Your task to perform on an android device: add a contact in the contacts app Image 0: 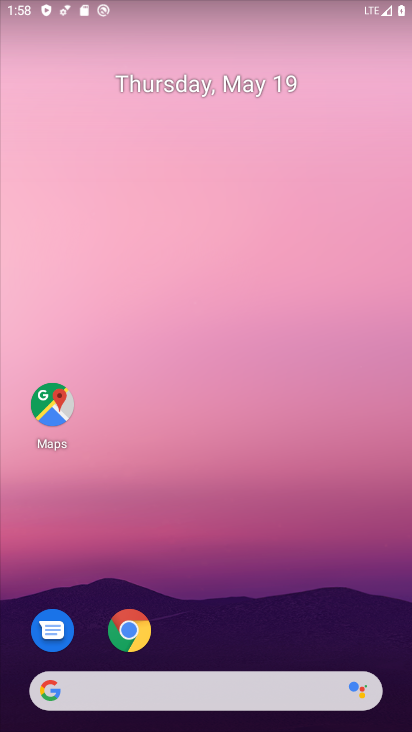
Step 0: drag from (241, 513) to (208, 24)
Your task to perform on an android device: add a contact in the contacts app Image 1: 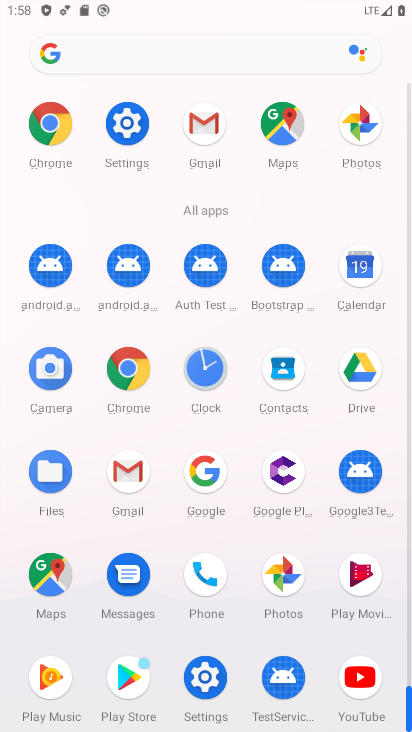
Step 1: click (282, 362)
Your task to perform on an android device: add a contact in the contacts app Image 2: 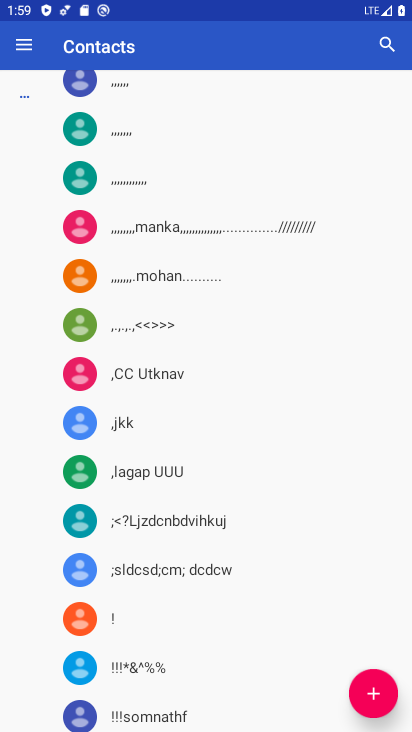
Step 2: click (373, 684)
Your task to perform on an android device: add a contact in the contacts app Image 3: 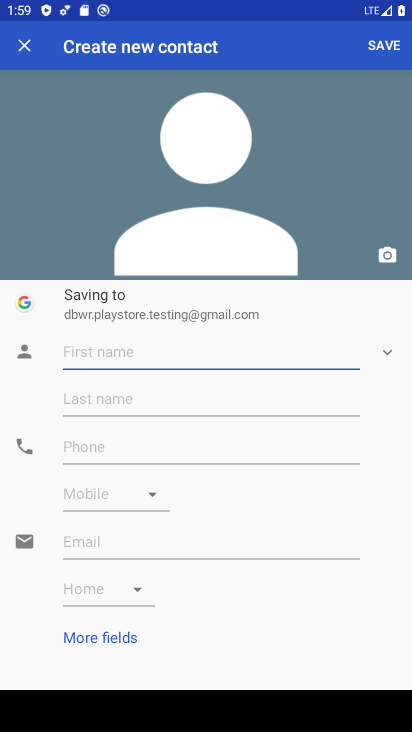
Step 3: type "Gdrtyui"
Your task to perform on an android device: add a contact in the contacts app Image 4: 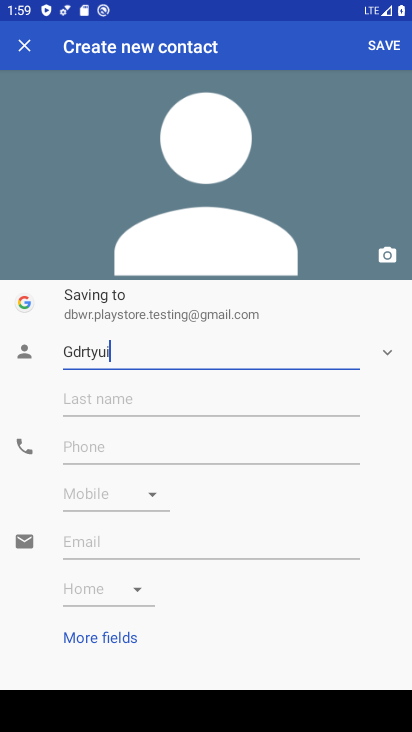
Step 4: type ""
Your task to perform on an android device: add a contact in the contacts app Image 5: 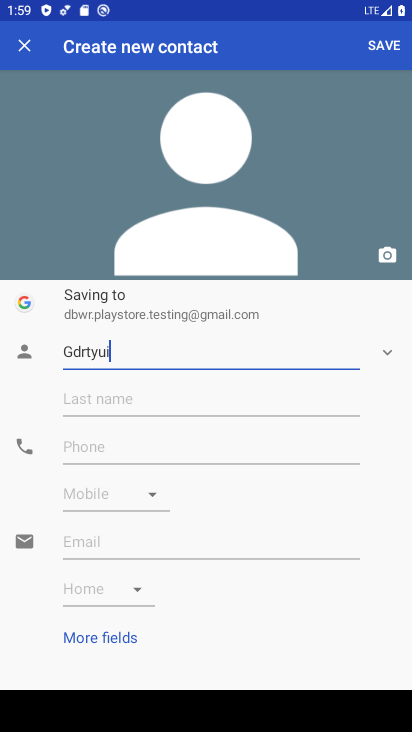
Step 5: click (104, 444)
Your task to perform on an android device: add a contact in the contacts app Image 6: 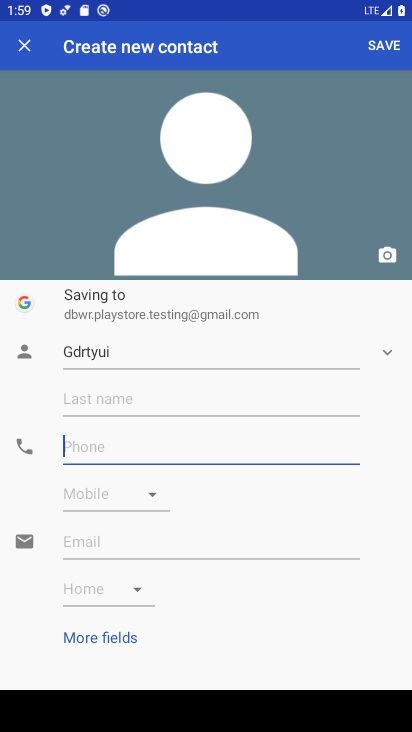
Step 6: type "345678"
Your task to perform on an android device: add a contact in the contacts app Image 7: 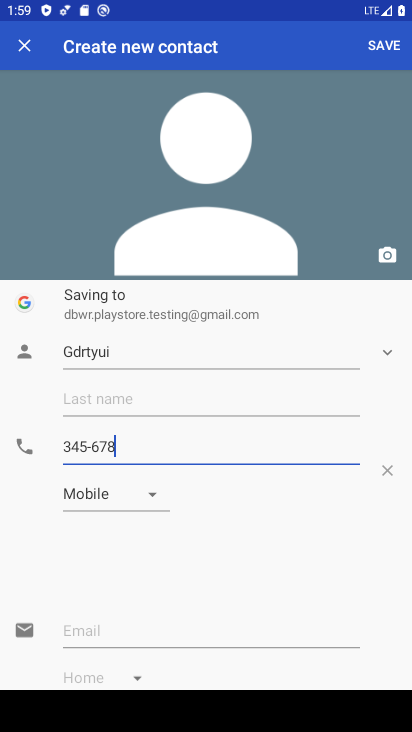
Step 7: type ""
Your task to perform on an android device: add a contact in the contacts app Image 8: 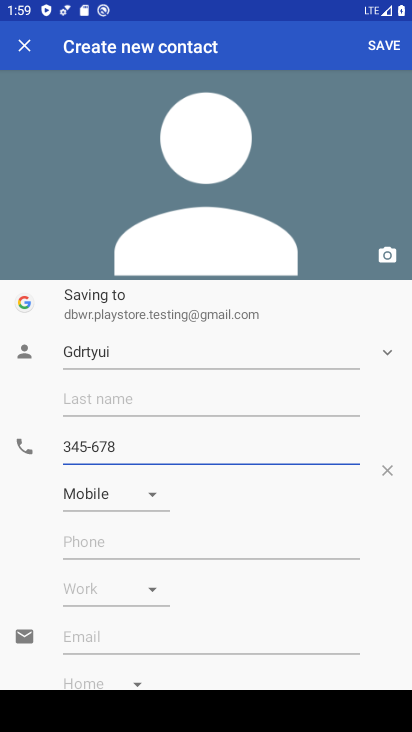
Step 8: click (387, 40)
Your task to perform on an android device: add a contact in the contacts app Image 9: 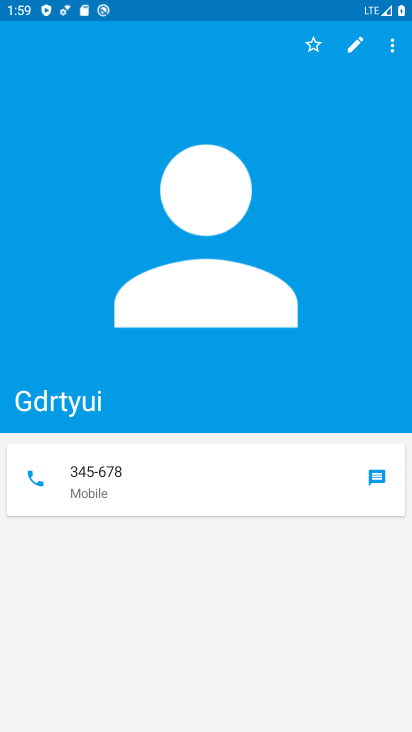
Step 9: task complete